Your task to perform on an android device: toggle translation in the chrome app Image 0: 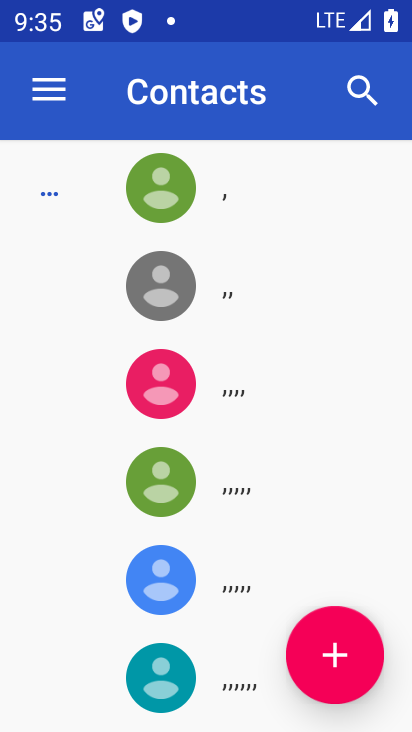
Step 0: press home button
Your task to perform on an android device: toggle translation in the chrome app Image 1: 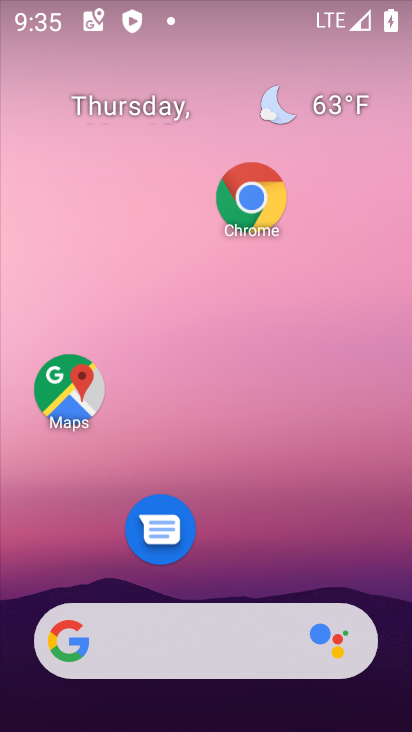
Step 1: click (267, 218)
Your task to perform on an android device: toggle translation in the chrome app Image 2: 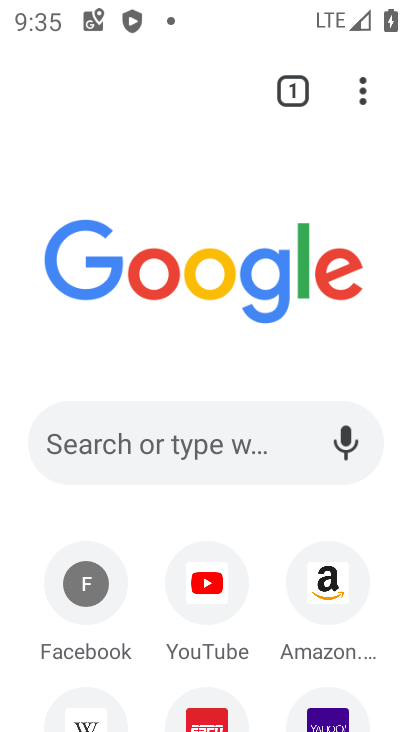
Step 2: click (364, 96)
Your task to perform on an android device: toggle translation in the chrome app Image 3: 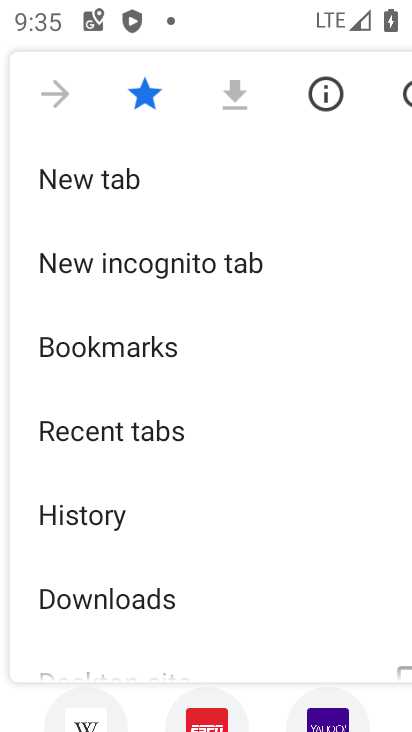
Step 3: task complete